Your task to perform on an android device: Go to network settings Image 0: 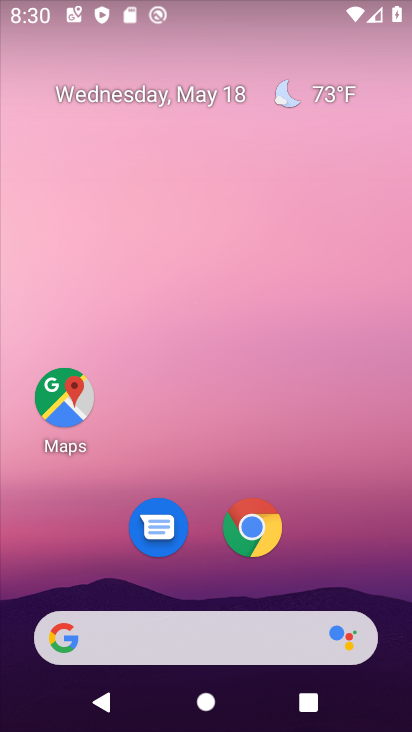
Step 0: drag from (330, 542) to (288, 7)
Your task to perform on an android device: Go to network settings Image 1: 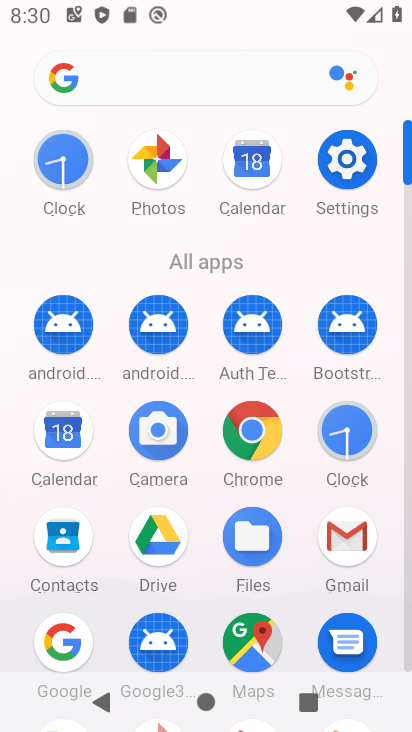
Step 1: click (366, 187)
Your task to perform on an android device: Go to network settings Image 2: 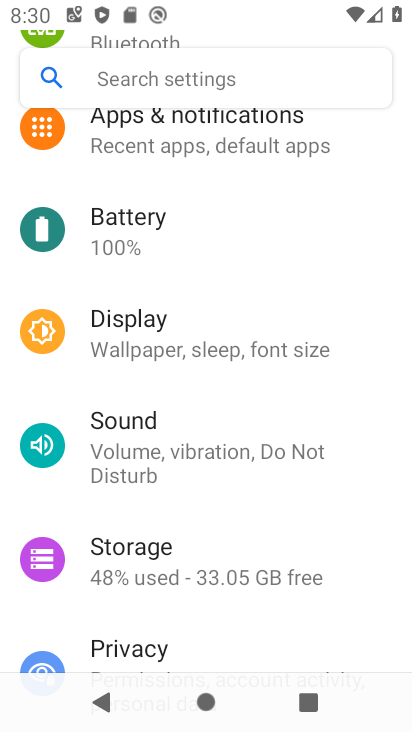
Step 2: drag from (192, 155) to (206, 728)
Your task to perform on an android device: Go to network settings Image 3: 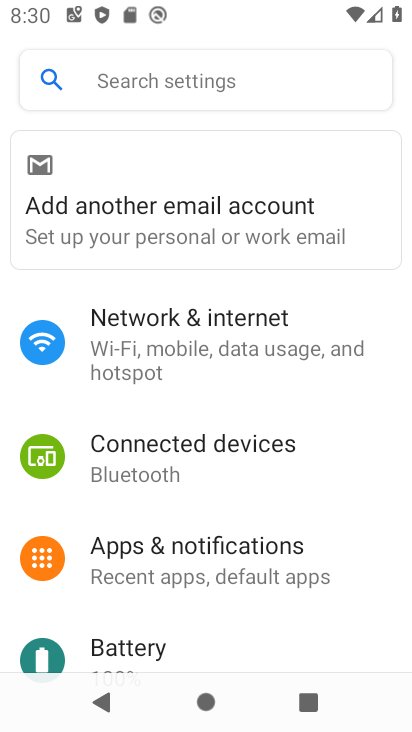
Step 3: click (165, 343)
Your task to perform on an android device: Go to network settings Image 4: 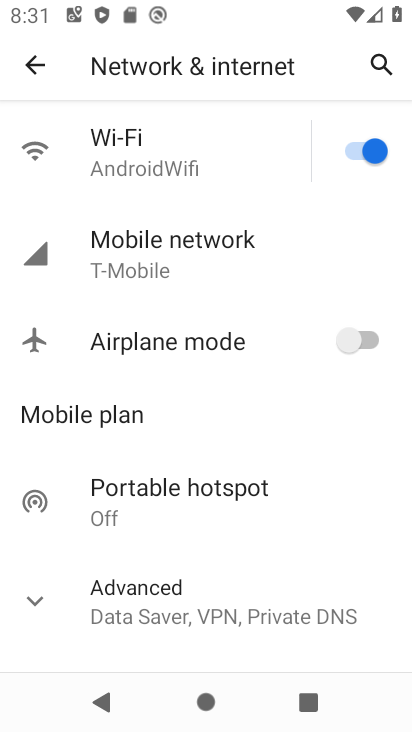
Step 4: task complete